Your task to perform on an android device: find snoozed emails in the gmail app Image 0: 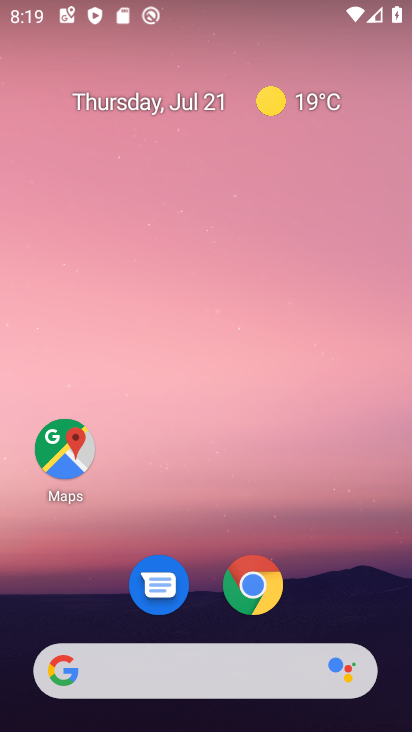
Step 0: drag from (332, 572) to (304, 5)
Your task to perform on an android device: find snoozed emails in the gmail app Image 1: 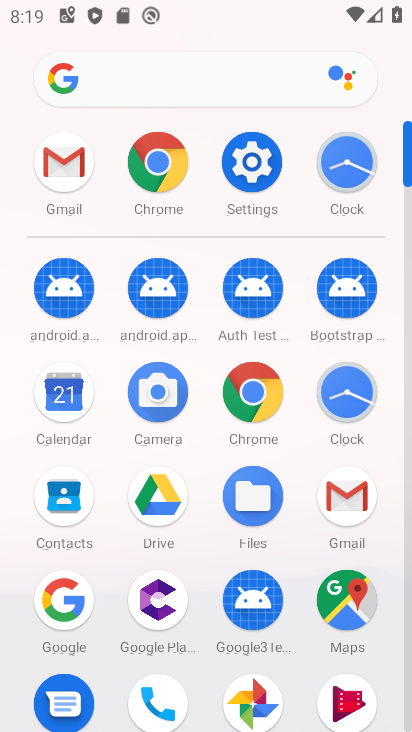
Step 1: click (78, 160)
Your task to perform on an android device: find snoozed emails in the gmail app Image 2: 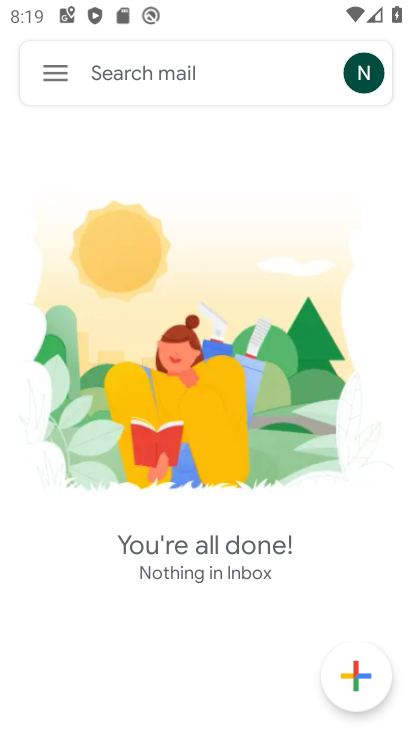
Step 2: click (52, 72)
Your task to perform on an android device: find snoozed emails in the gmail app Image 3: 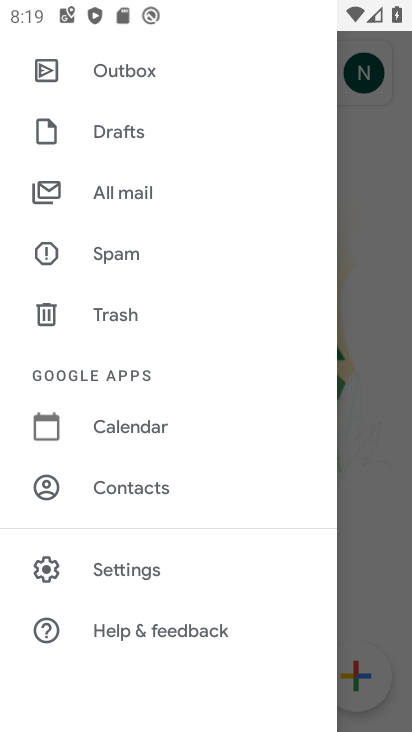
Step 3: drag from (184, 111) to (248, 581)
Your task to perform on an android device: find snoozed emails in the gmail app Image 4: 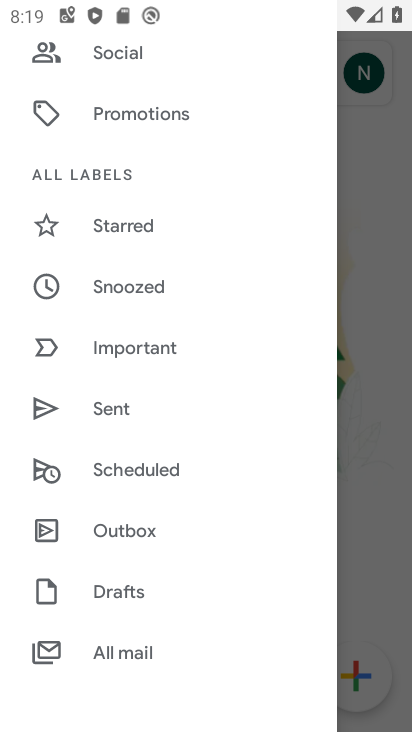
Step 4: click (144, 288)
Your task to perform on an android device: find snoozed emails in the gmail app Image 5: 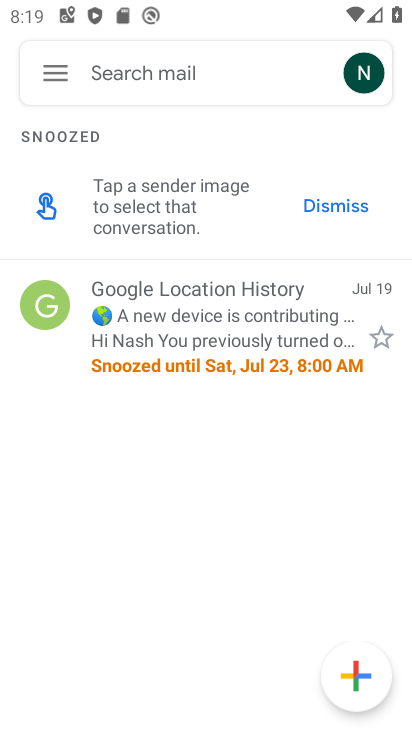
Step 5: task complete